Your task to perform on an android device: change keyboard looks Image 0: 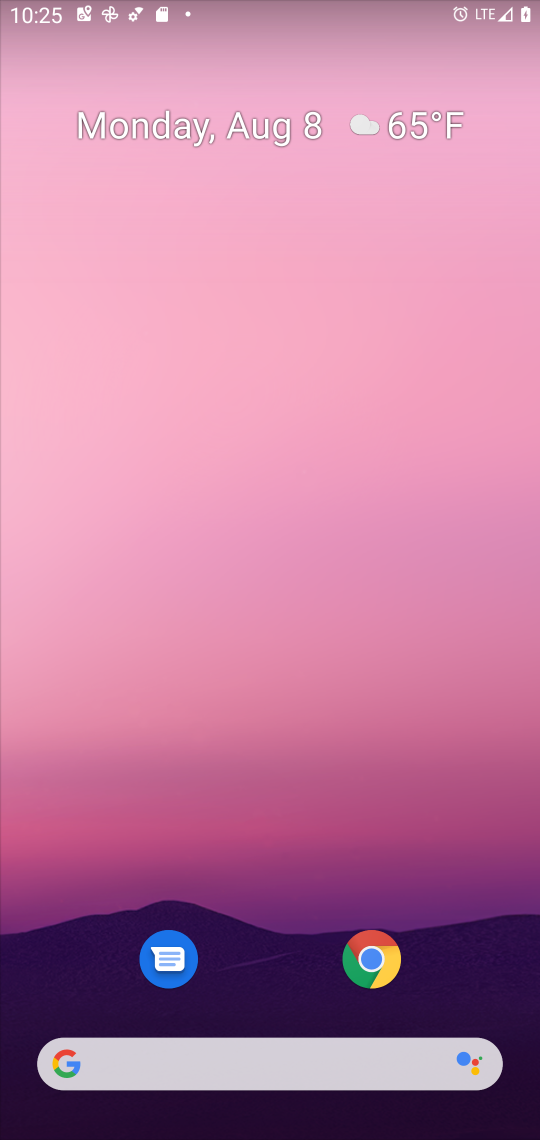
Step 0: drag from (453, 921) to (199, 65)
Your task to perform on an android device: change keyboard looks Image 1: 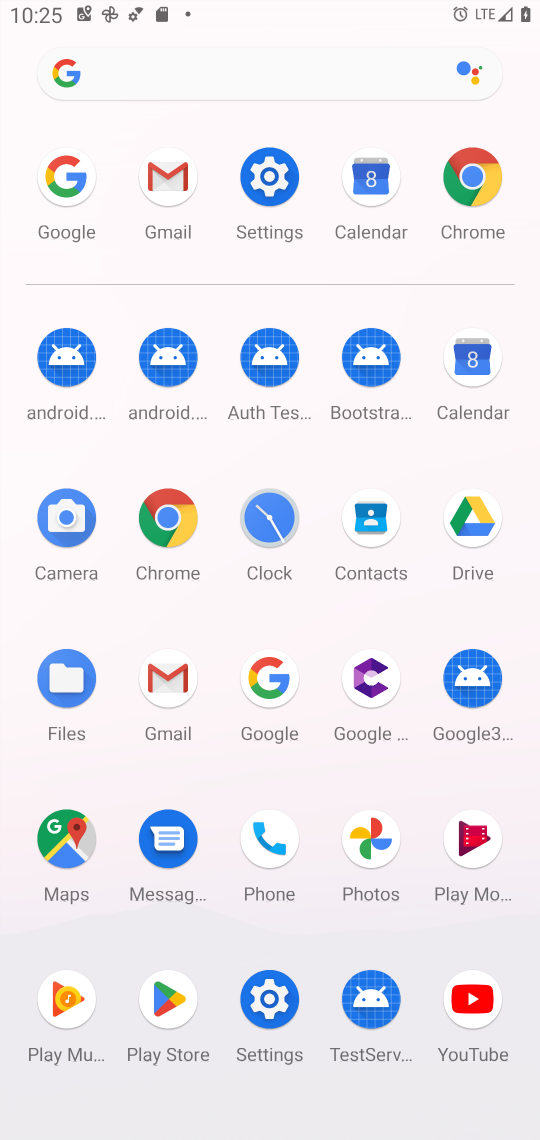
Step 1: click (258, 1023)
Your task to perform on an android device: change keyboard looks Image 2: 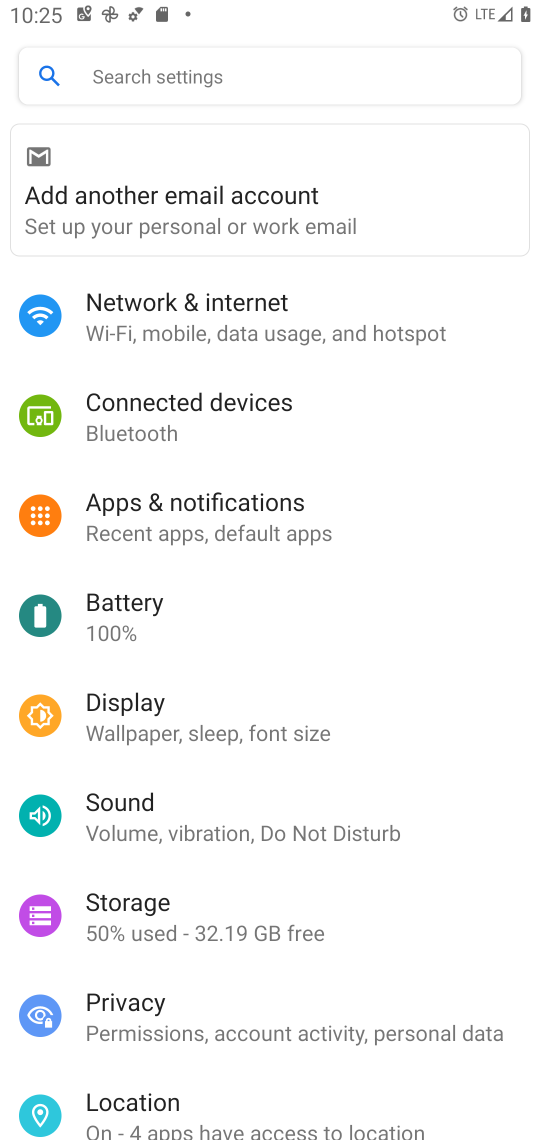
Step 2: drag from (197, 1034) to (149, 15)
Your task to perform on an android device: change keyboard looks Image 3: 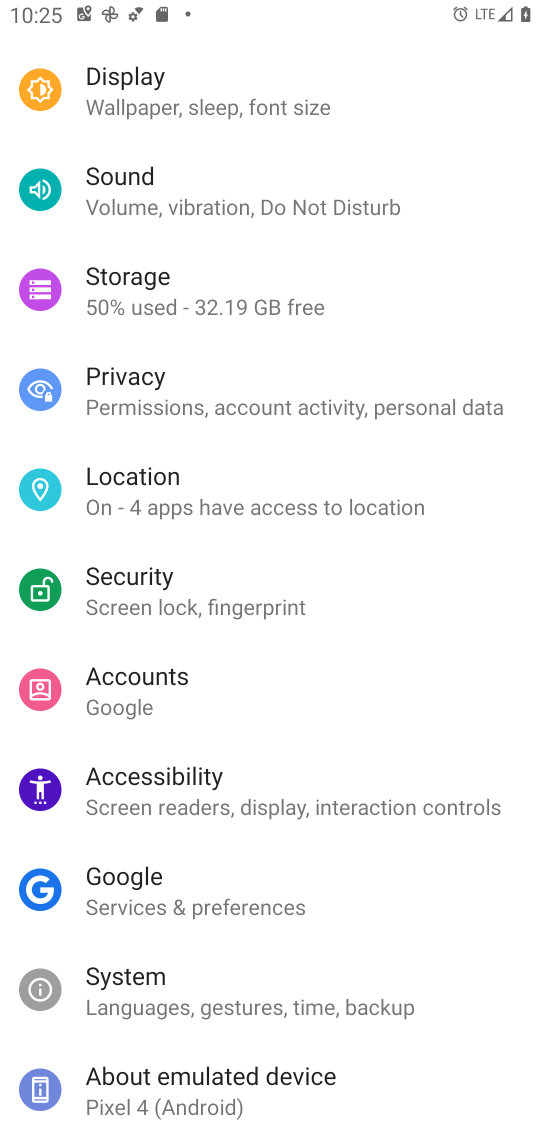
Step 3: click (138, 998)
Your task to perform on an android device: change keyboard looks Image 4: 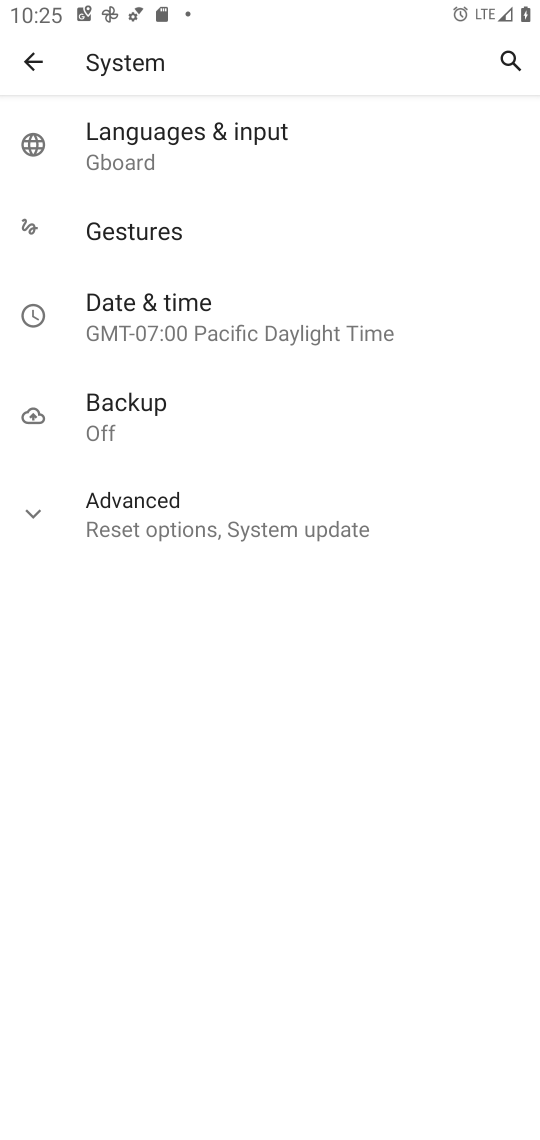
Step 4: click (187, 160)
Your task to perform on an android device: change keyboard looks Image 5: 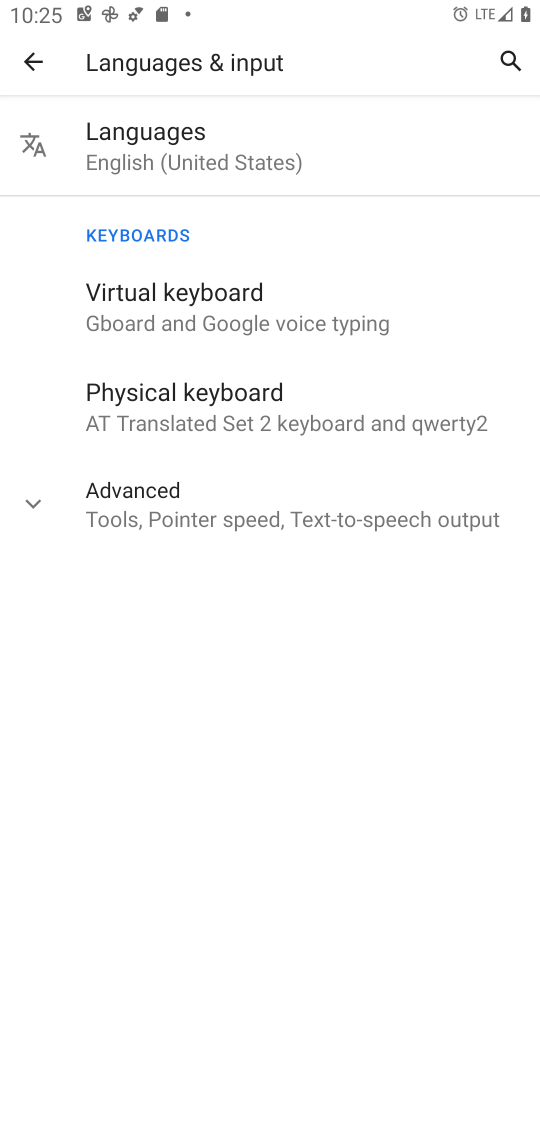
Step 5: click (140, 294)
Your task to perform on an android device: change keyboard looks Image 6: 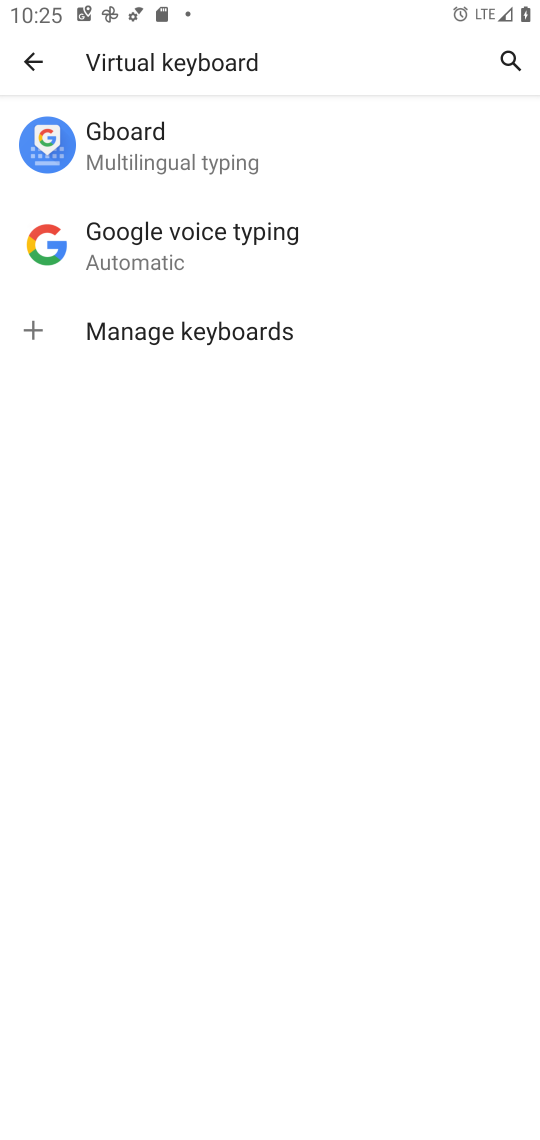
Step 6: click (170, 160)
Your task to perform on an android device: change keyboard looks Image 7: 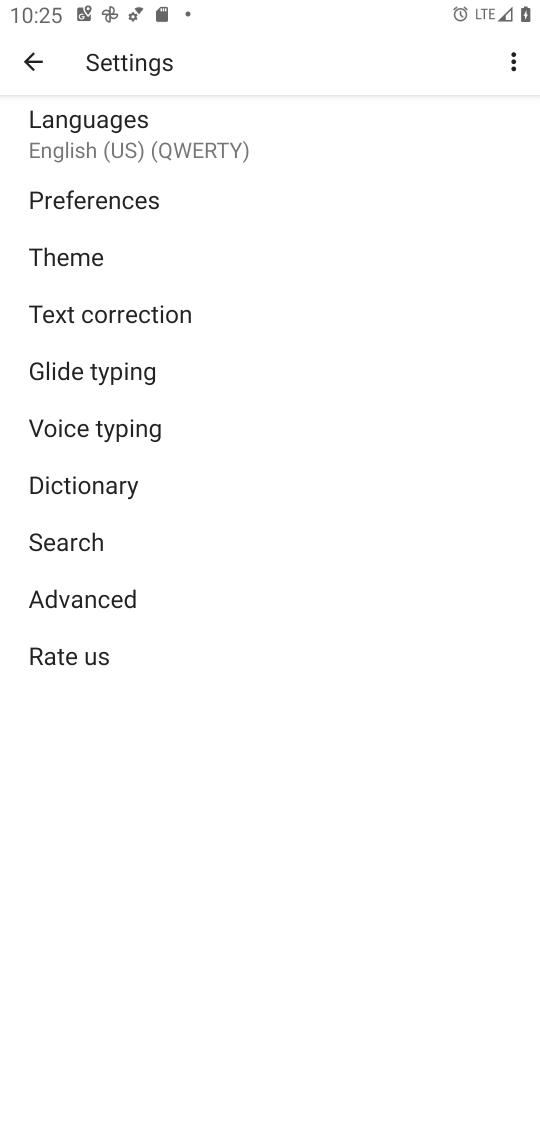
Step 7: click (103, 271)
Your task to perform on an android device: change keyboard looks Image 8: 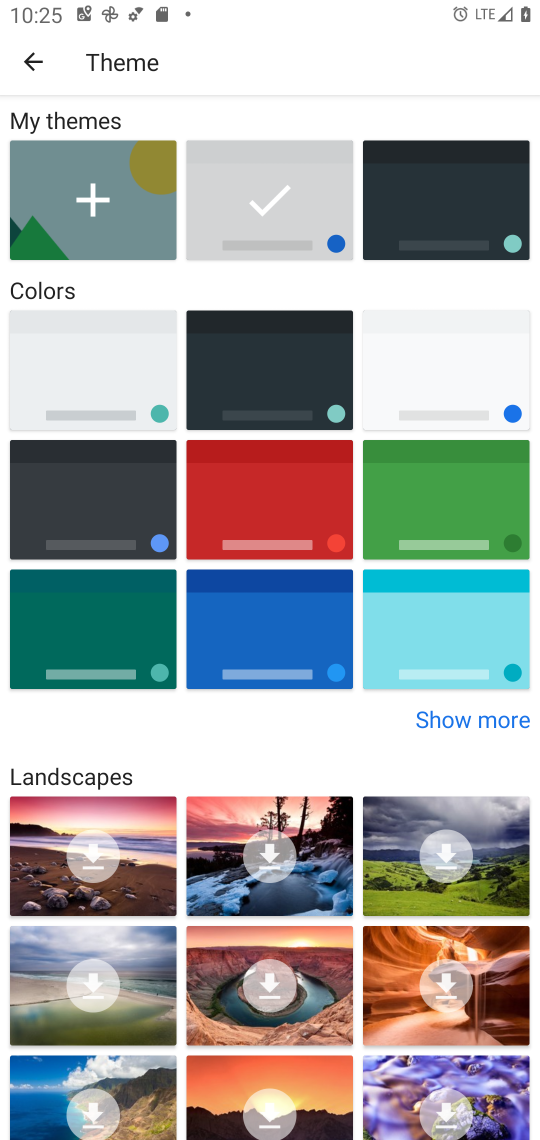
Step 8: click (107, 511)
Your task to perform on an android device: change keyboard looks Image 9: 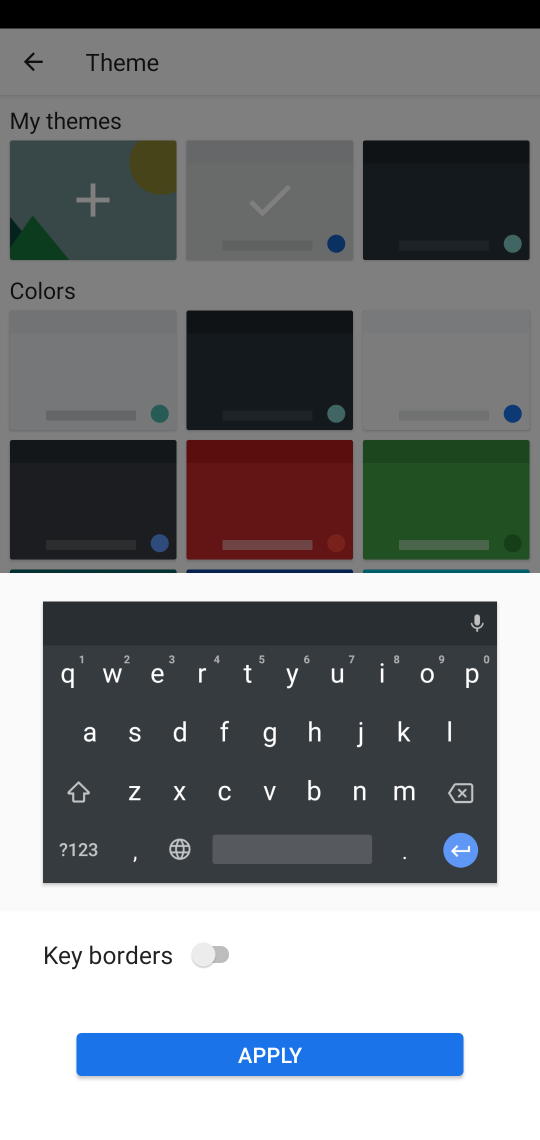
Step 9: click (268, 1050)
Your task to perform on an android device: change keyboard looks Image 10: 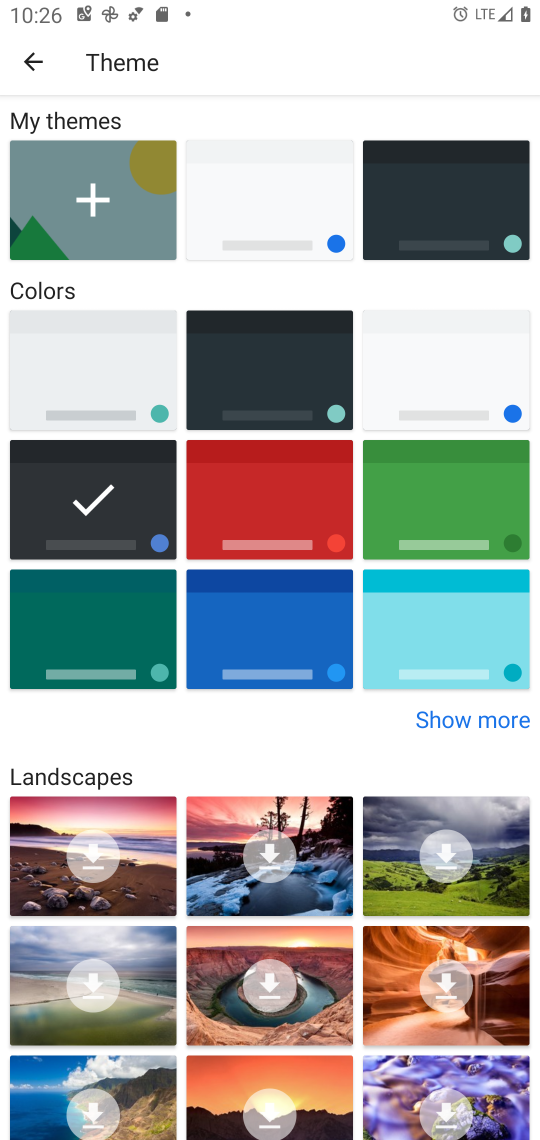
Step 10: task complete